Your task to perform on an android device: Open Google Chrome Image 0: 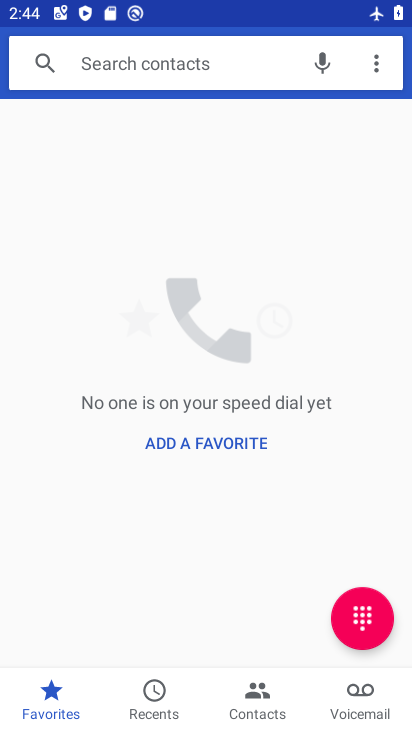
Step 0: press home button
Your task to perform on an android device: Open Google Chrome Image 1: 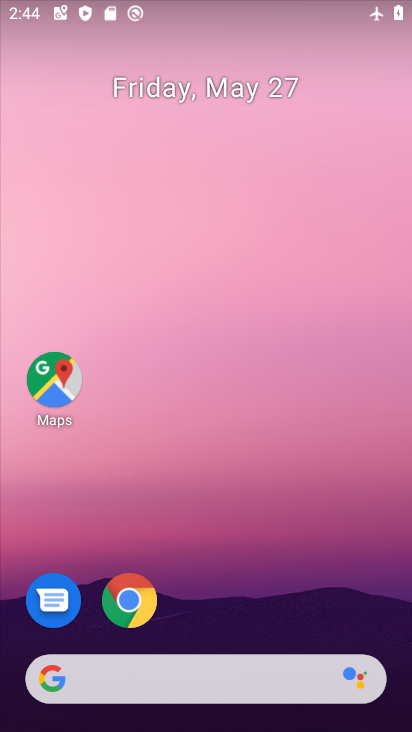
Step 1: click (109, 596)
Your task to perform on an android device: Open Google Chrome Image 2: 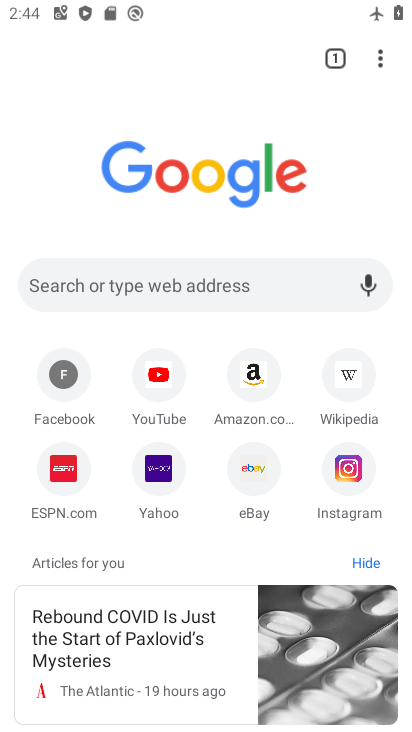
Step 2: task complete